Your task to perform on an android device: see sites visited before in the chrome app Image 0: 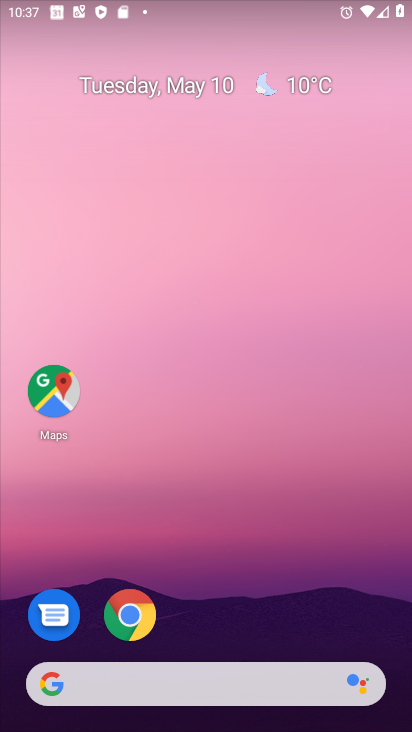
Step 0: click (129, 610)
Your task to perform on an android device: see sites visited before in the chrome app Image 1: 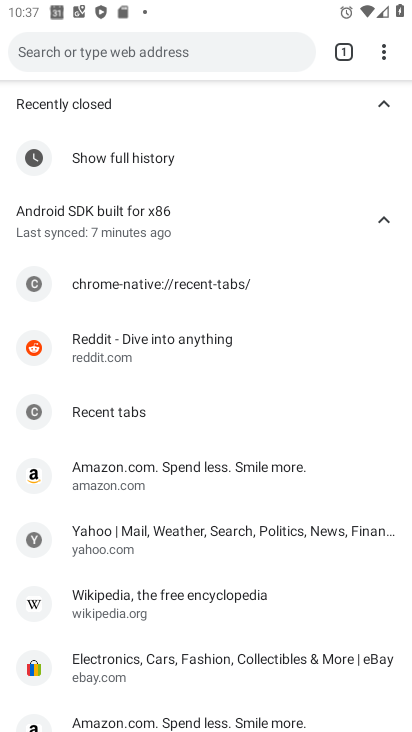
Step 1: task complete